Your task to perform on an android device: uninstall "Pandora - Music & Podcasts" Image 0: 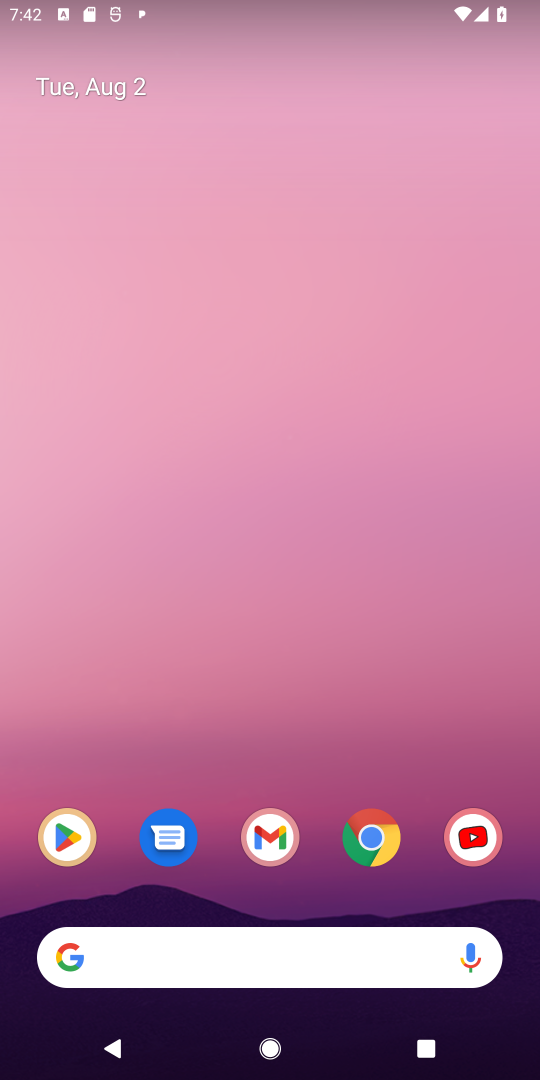
Step 0: click (64, 844)
Your task to perform on an android device: uninstall "Pandora - Music & Podcasts" Image 1: 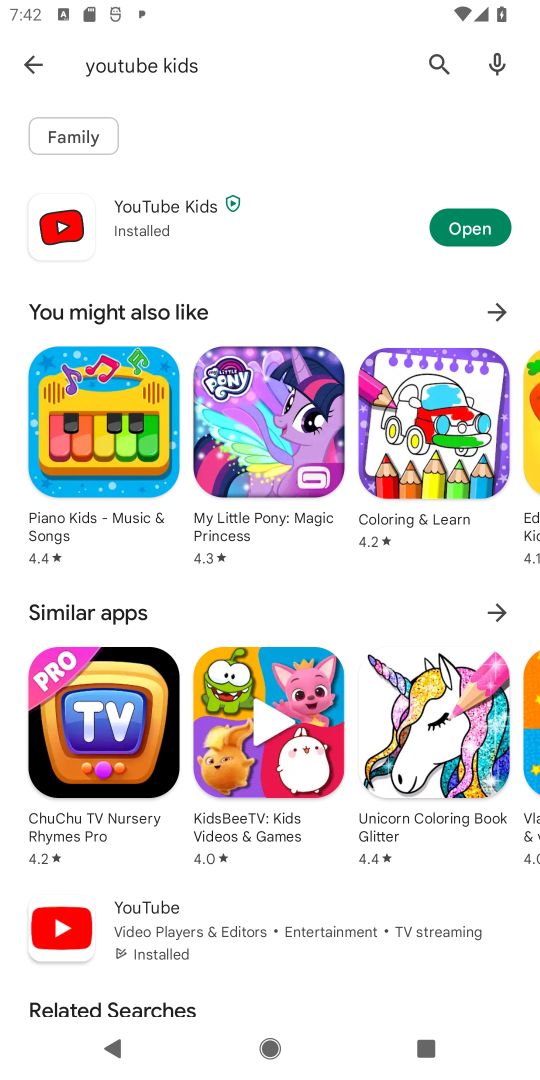
Step 1: click (444, 65)
Your task to perform on an android device: uninstall "Pandora - Music & Podcasts" Image 2: 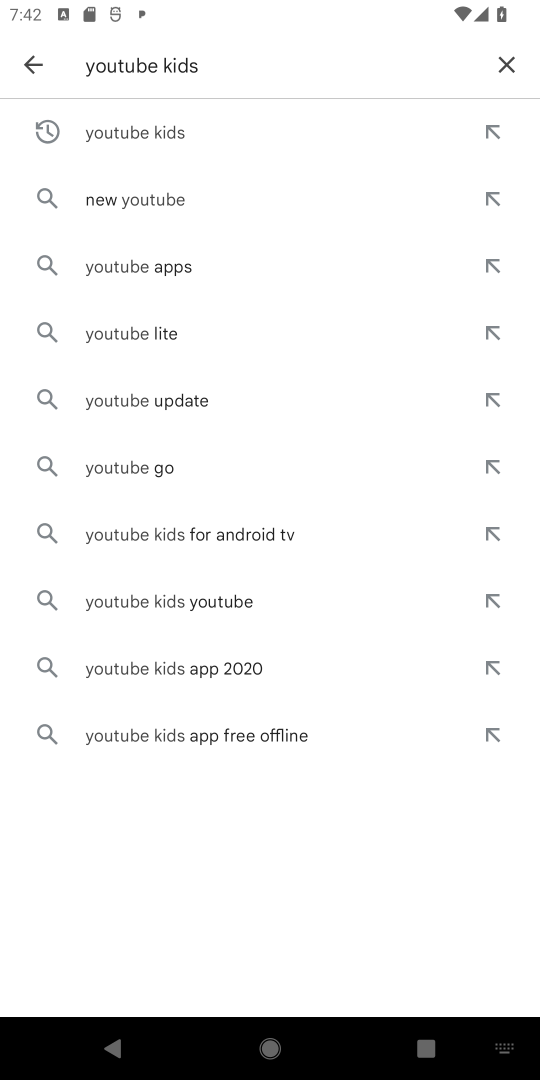
Step 2: click (505, 68)
Your task to perform on an android device: uninstall "Pandora - Music & Podcasts" Image 3: 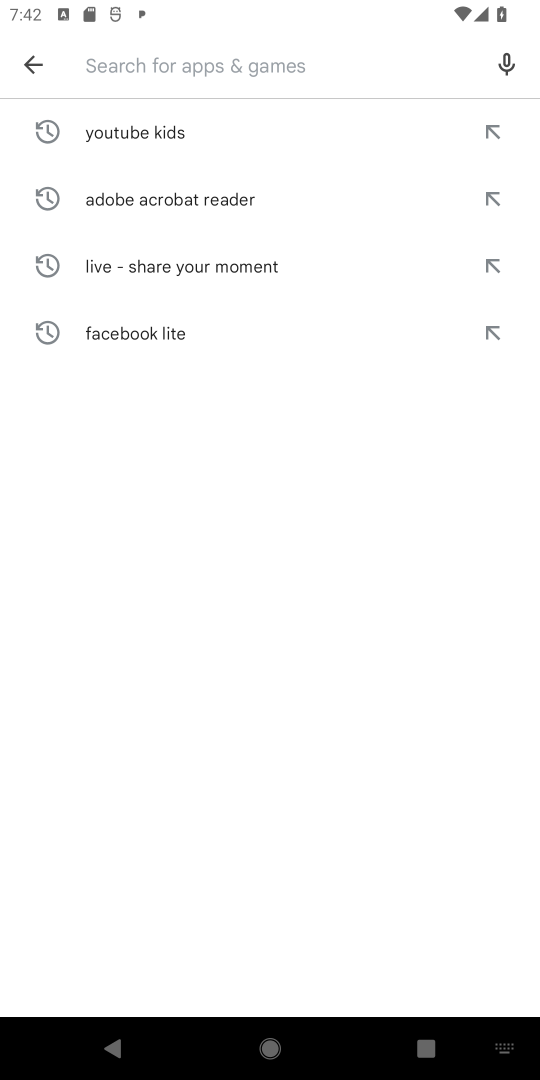
Step 3: type "Pandora - Music & Podcasts"
Your task to perform on an android device: uninstall "Pandora - Music & Podcasts" Image 4: 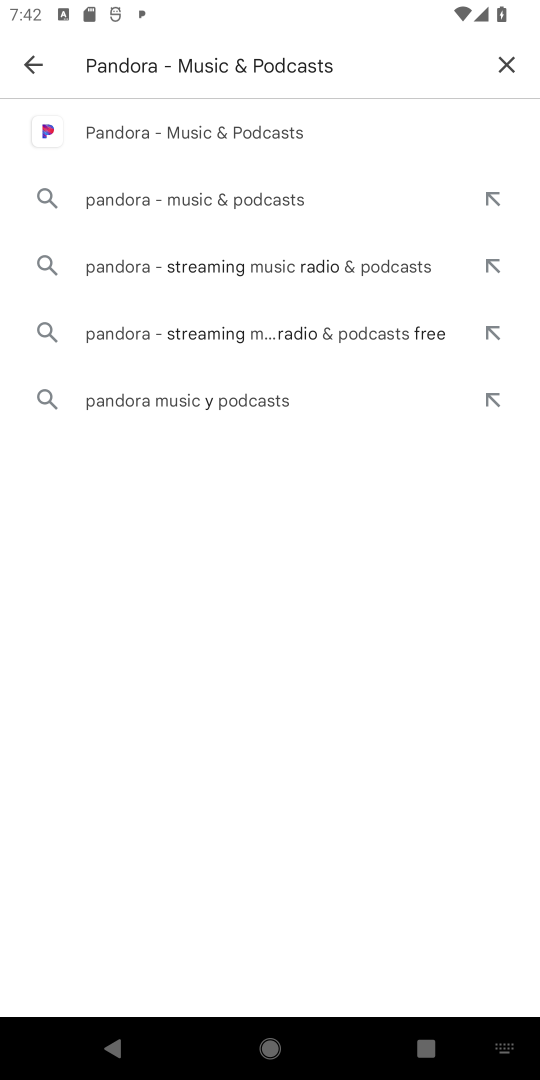
Step 4: click (190, 140)
Your task to perform on an android device: uninstall "Pandora - Music & Podcasts" Image 5: 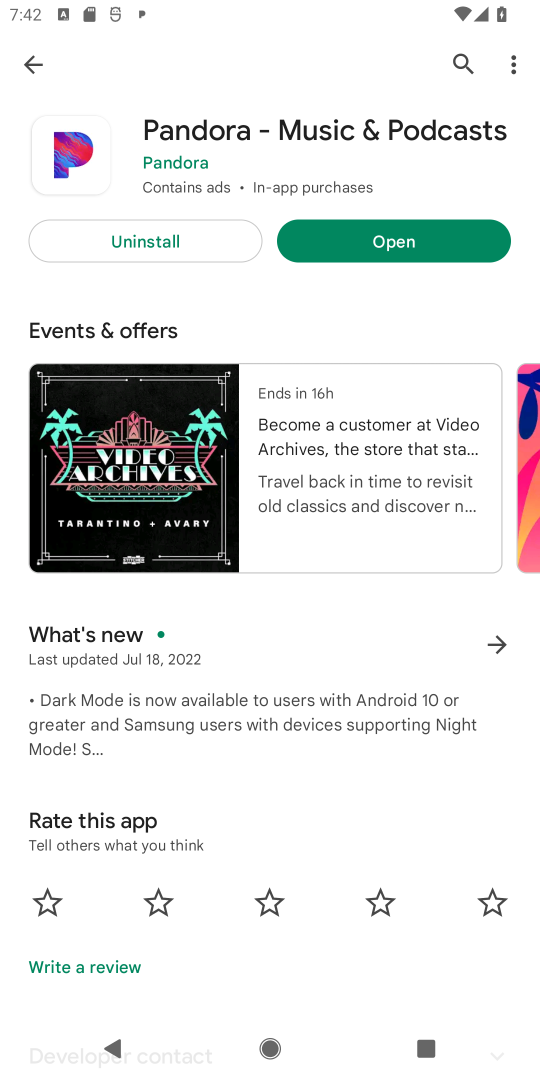
Step 5: click (132, 235)
Your task to perform on an android device: uninstall "Pandora - Music & Podcasts" Image 6: 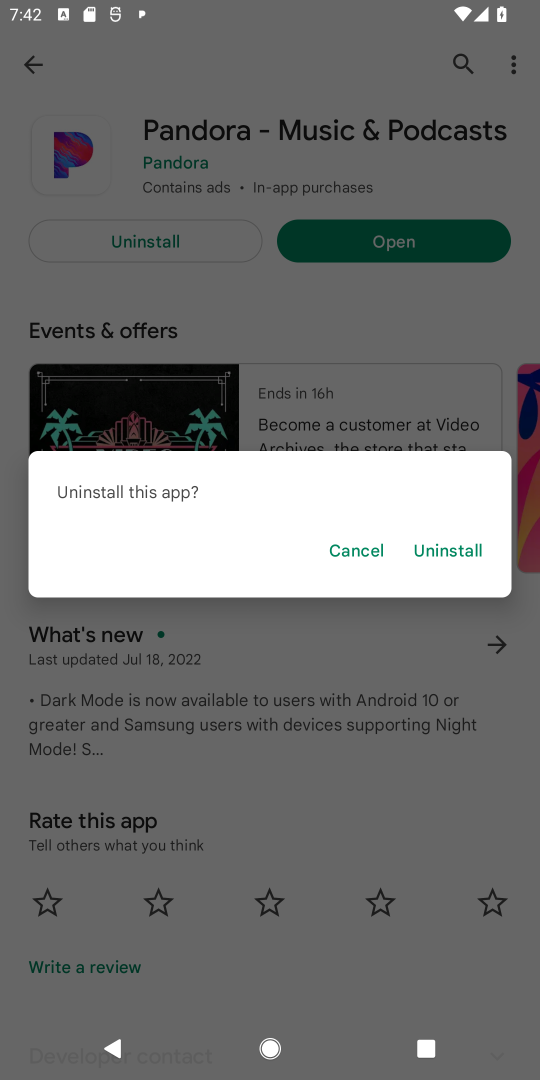
Step 6: click (438, 549)
Your task to perform on an android device: uninstall "Pandora - Music & Podcasts" Image 7: 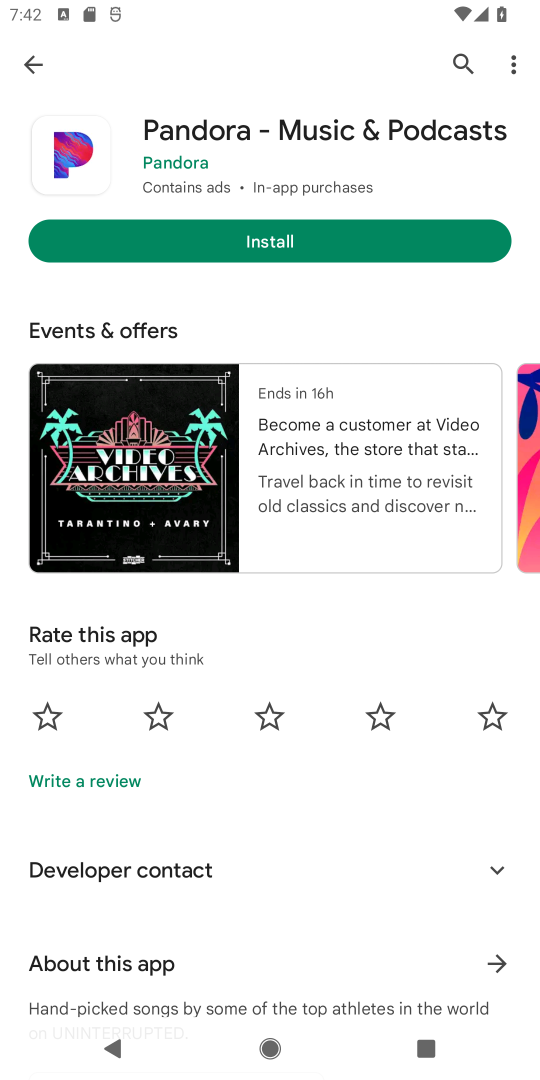
Step 7: task complete